Your task to perform on an android device: set the timer Image 0: 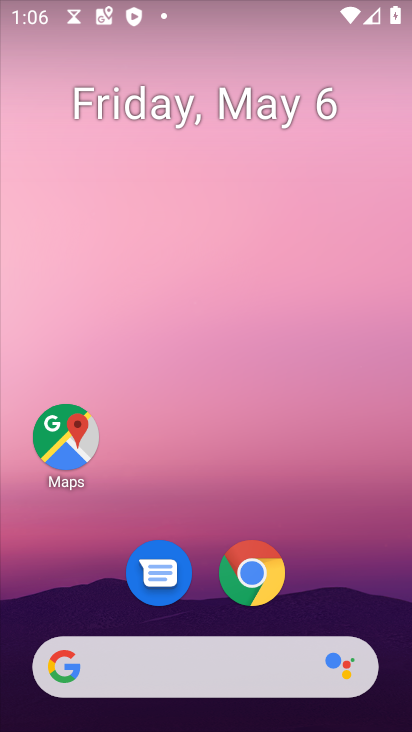
Step 0: drag from (320, 487) to (347, 292)
Your task to perform on an android device: set the timer Image 1: 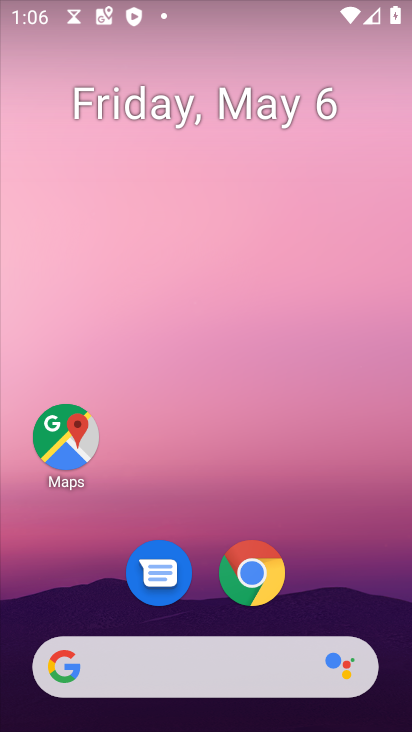
Step 1: drag from (314, 597) to (363, 269)
Your task to perform on an android device: set the timer Image 2: 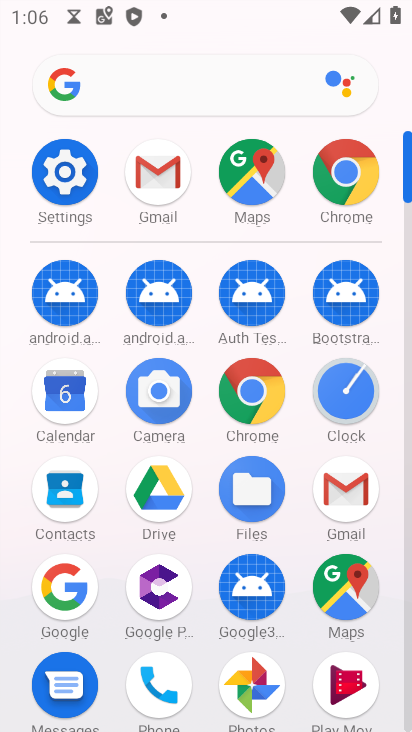
Step 2: click (347, 385)
Your task to perform on an android device: set the timer Image 3: 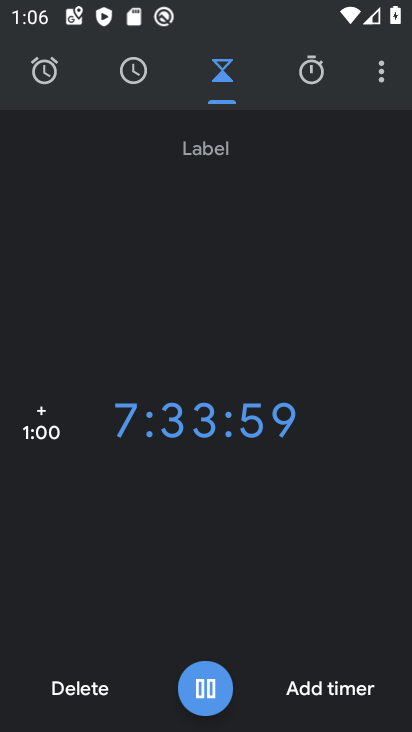
Step 3: click (204, 677)
Your task to perform on an android device: set the timer Image 4: 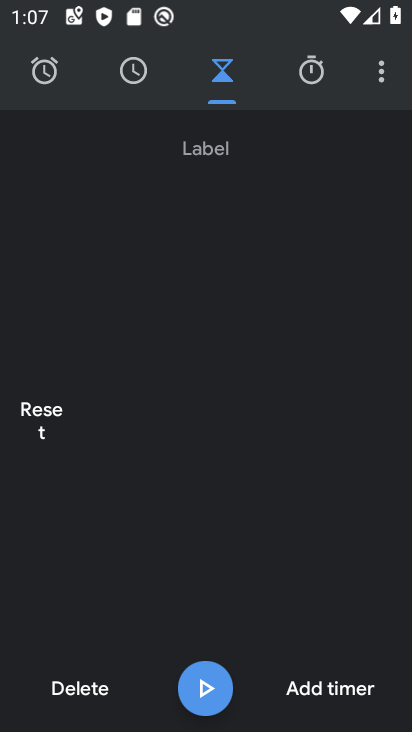
Step 4: task complete